Your task to perform on an android device: check google app version Image 0: 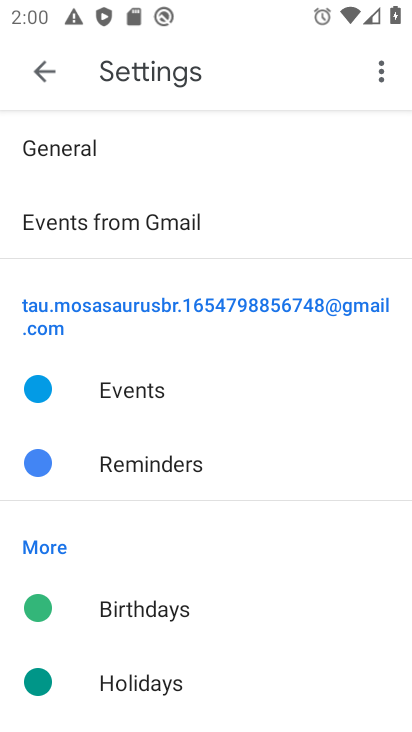
Step 0: press home button
Your task to perform on an android device: check google app version Image 1: 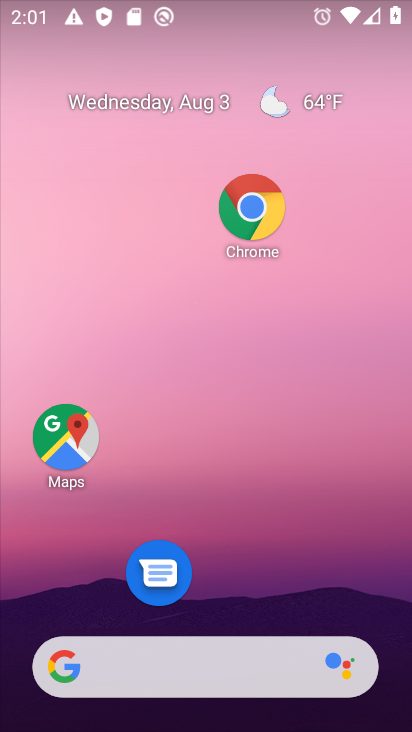
Step 1: drag from (299, 655) to (411, 160)
Your task to perform on an android device: check google app version Image 2: 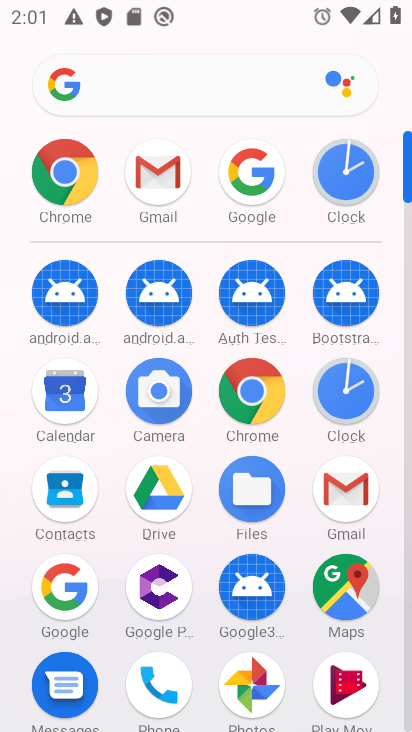
Step 2: drag from (257, 489) to (257, 133)
Your task to perform on an android device: check google app version Image 3: 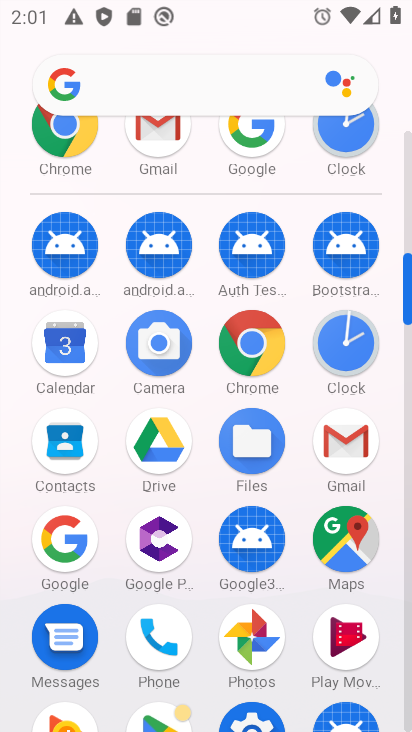
Step 3: drag from (159, 463) to (150, 4)
Your task to perform on an android device: check google app version Image 4: 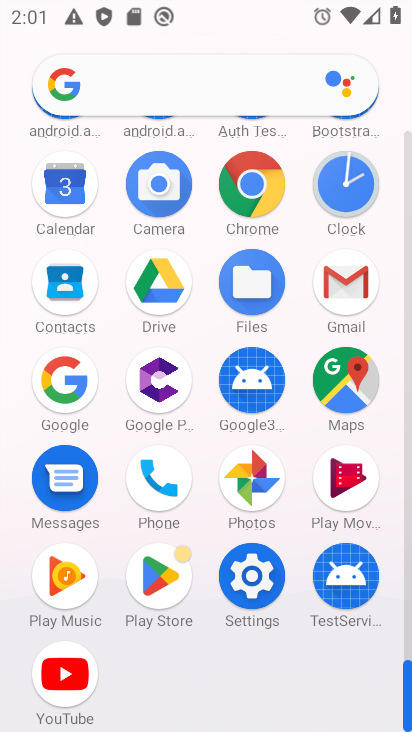
Step 4: click (65, 388)
Your task to perform on an android device: check google app version Image 5: 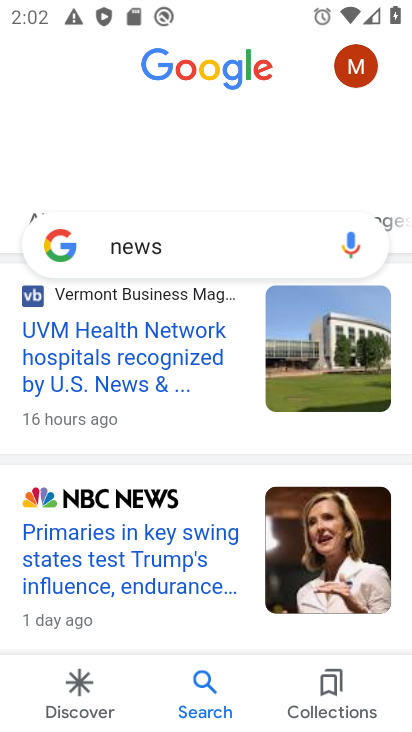
Step 5: click (371, 54)
Your task to perform on an android device: check google app version Image 6: 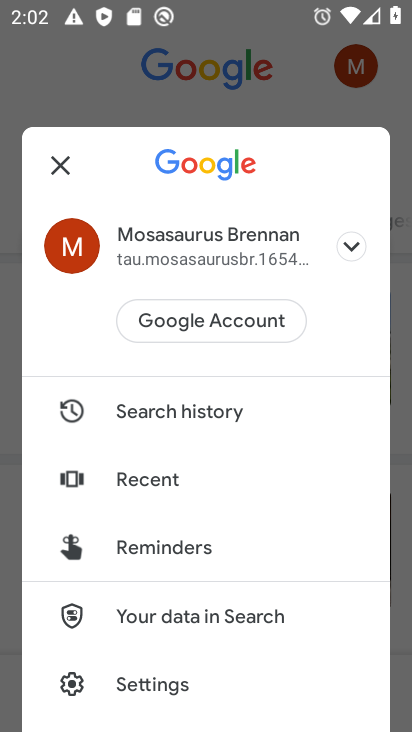
Step 6: drag from (184, 672) to (238, 298)
Your task to perform on an android device: check google app version Image 7: 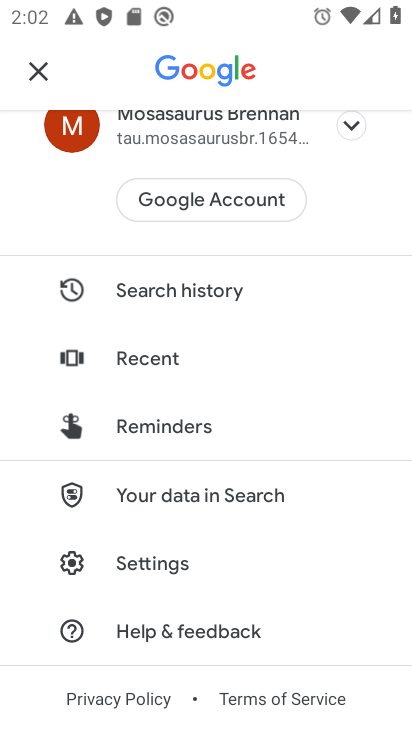
Step 7: click (146, 565)
Your task to perform on an android device: check google app version Image 8: 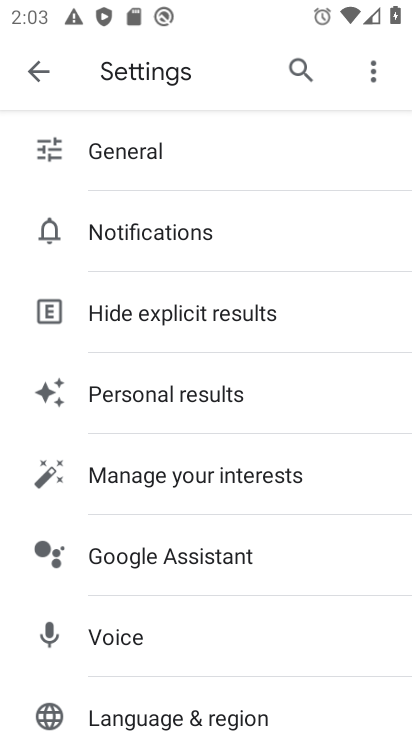
Step 8: drag from (144, 567) to (295, 4)
Your task to perform on an android device: check google app version Image 9: 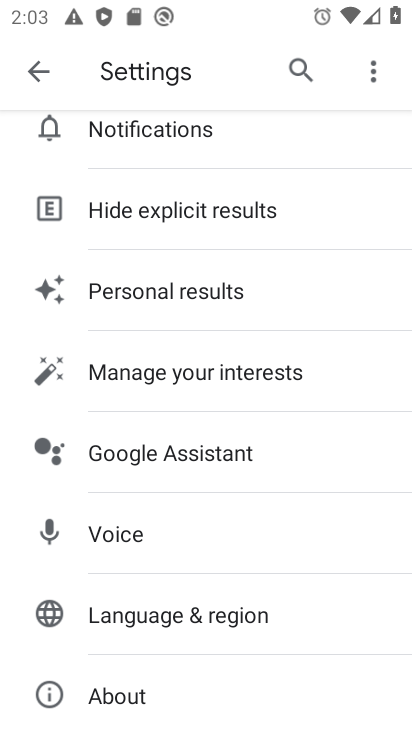
Step 9: drag from (167, 640) to (200, 347)
Your task to perform on an android device: check google app version Image 10: 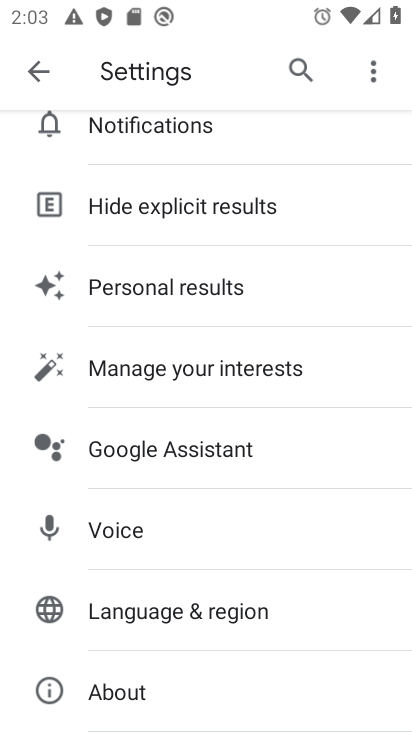
Step 10: click (144, 683)
Your task to perform on an android device: check google app version Image 11: 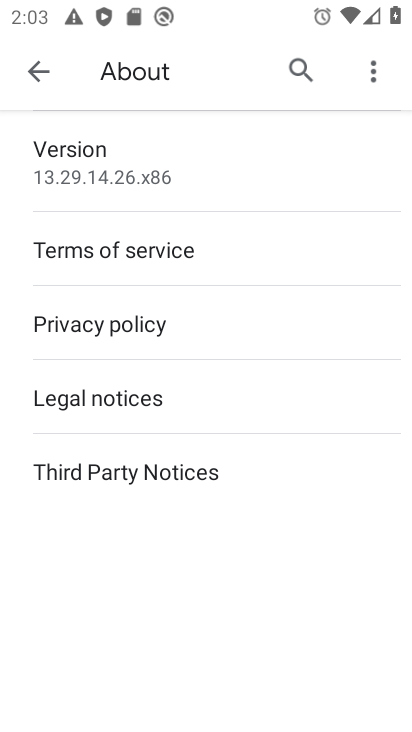
Step 11: click (188, 171)
Your task to perform on an android device: check google app version Image 12: 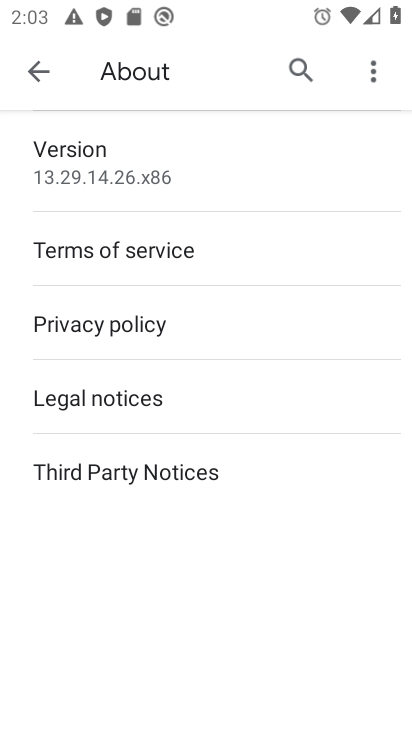
Step 12: click (174, 166)
Your task to perform on an android device: check google app version Image 13: 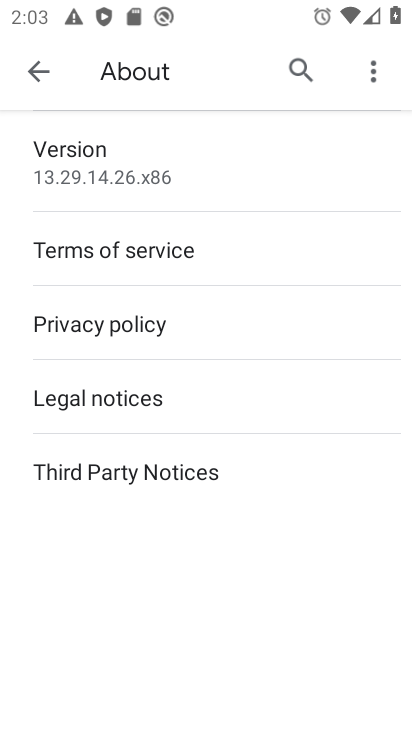
Step 13: task complete